Your task to perform on an android device: turn off translation in the chrome app Image 0: 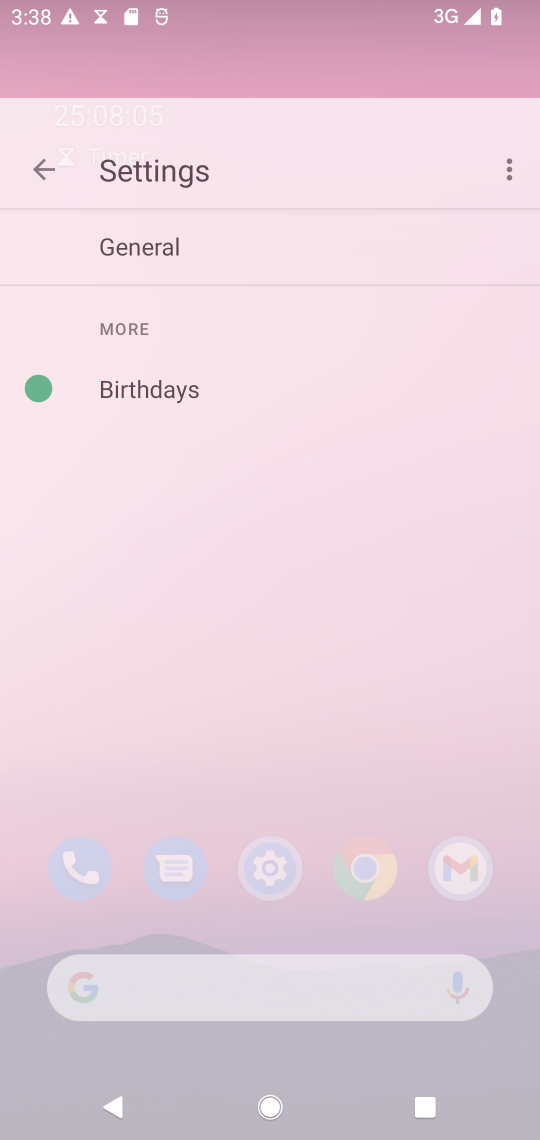
Step 0: click (403, 88)
Your task to perform on an android device: turn off translation in the chrome app Image 1: 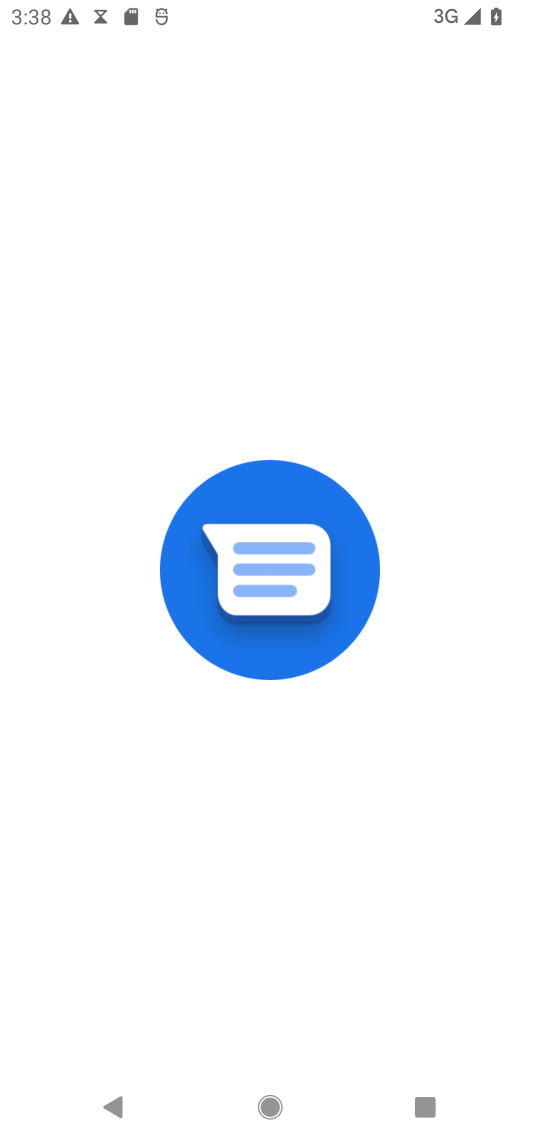
Step 1: click (328, 704)
Your task to perform on an android device: turn off translation in the chrome app Image 2: 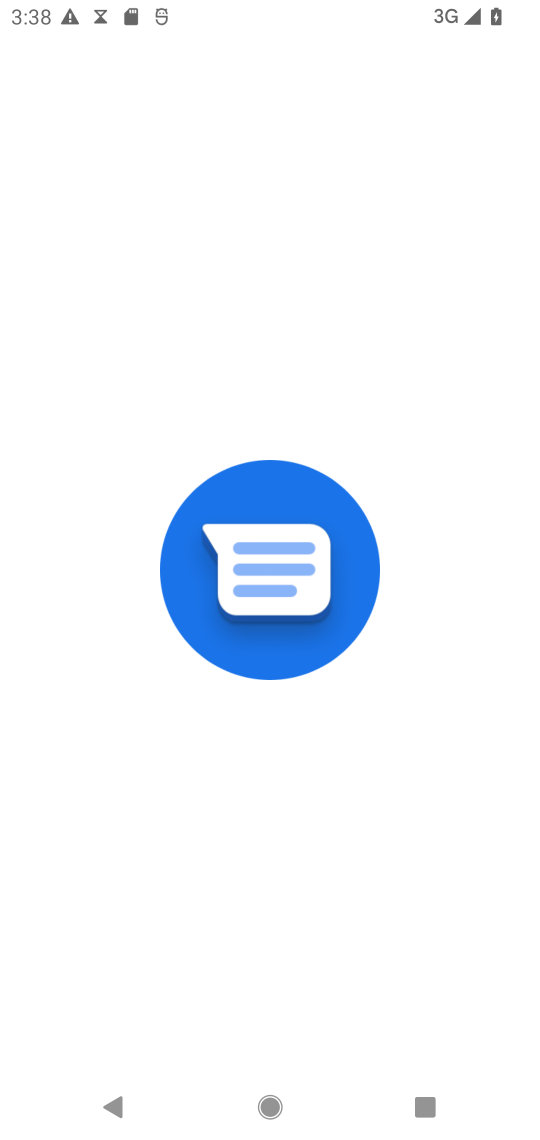
Step 2: press home button
Your task to perform on an android device: turn off translation in the chrome app Image 3: 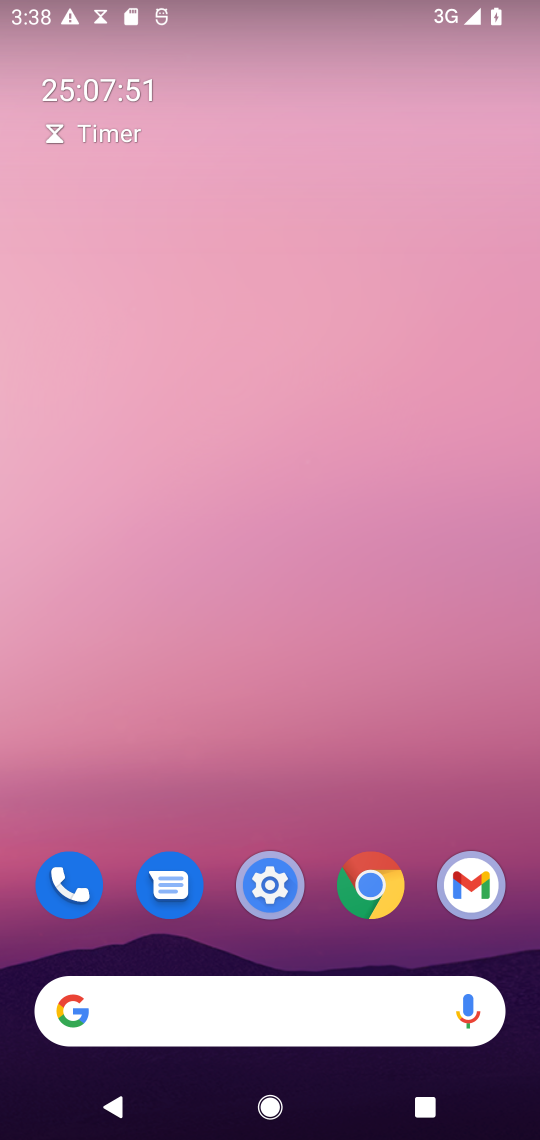
Step 3: drag from (252, 1020) to (425, 0)
Your task to perform on an android device: turn off translation in the chrome app Image 4: 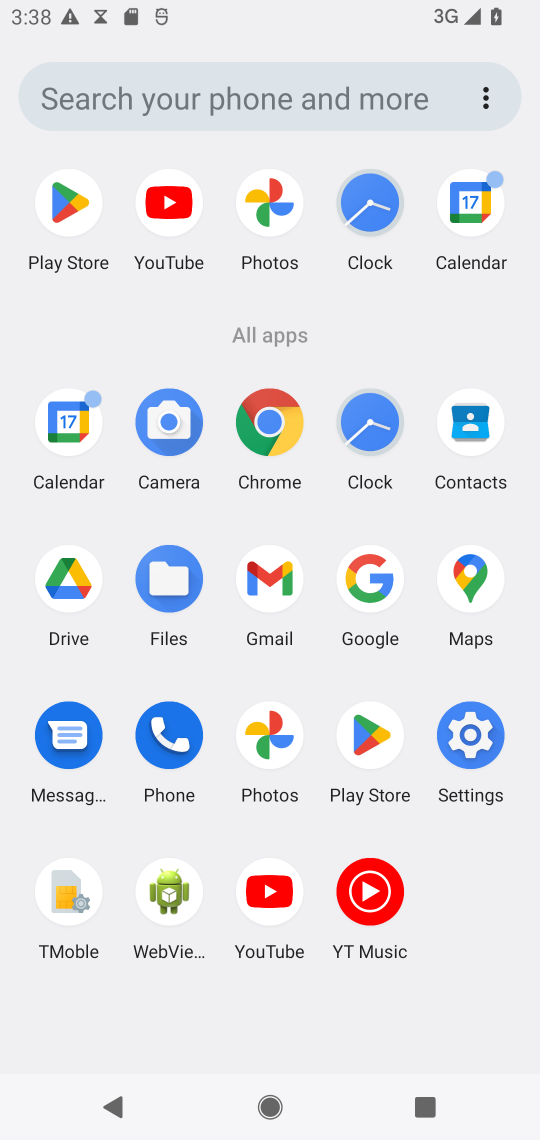
Step 4: click (292, 423)
Your task to perform on an android device: turn off translation in the chrome app Image 5: 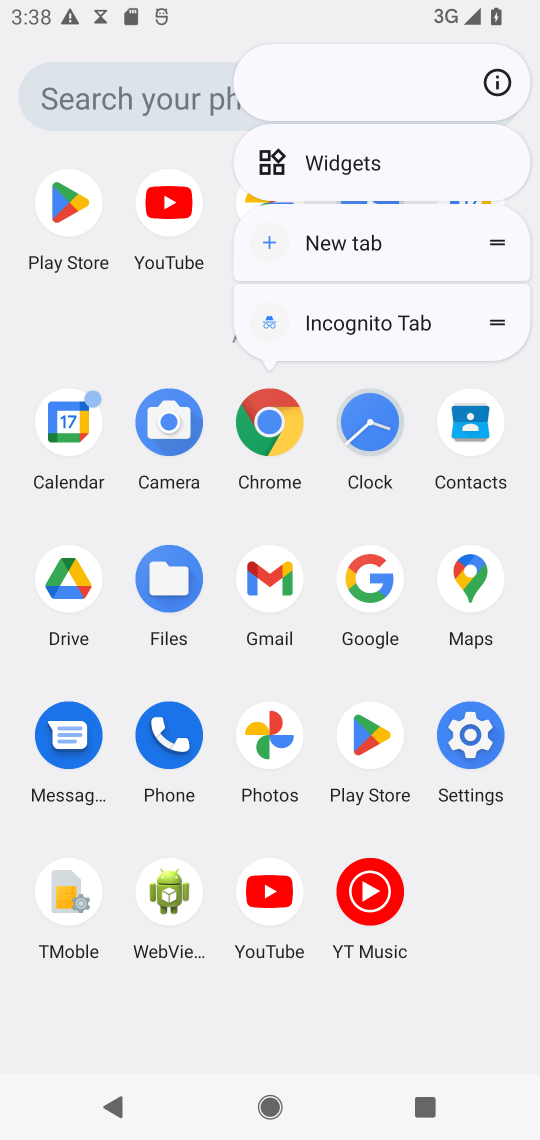
Step 5: click (264, 418)
Your task to perform on an android device: turn off translation in the chrome app Image 6: 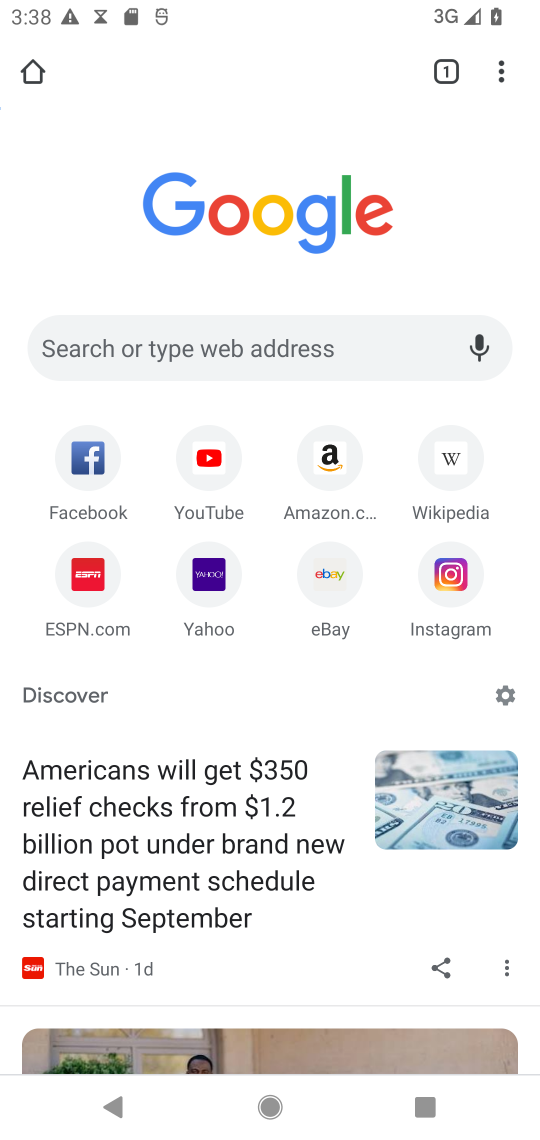
Step 6: drag from (503, 70) to (252, 760)
Your task to perform on an android device: turn off translation in the chrome app Image 7: 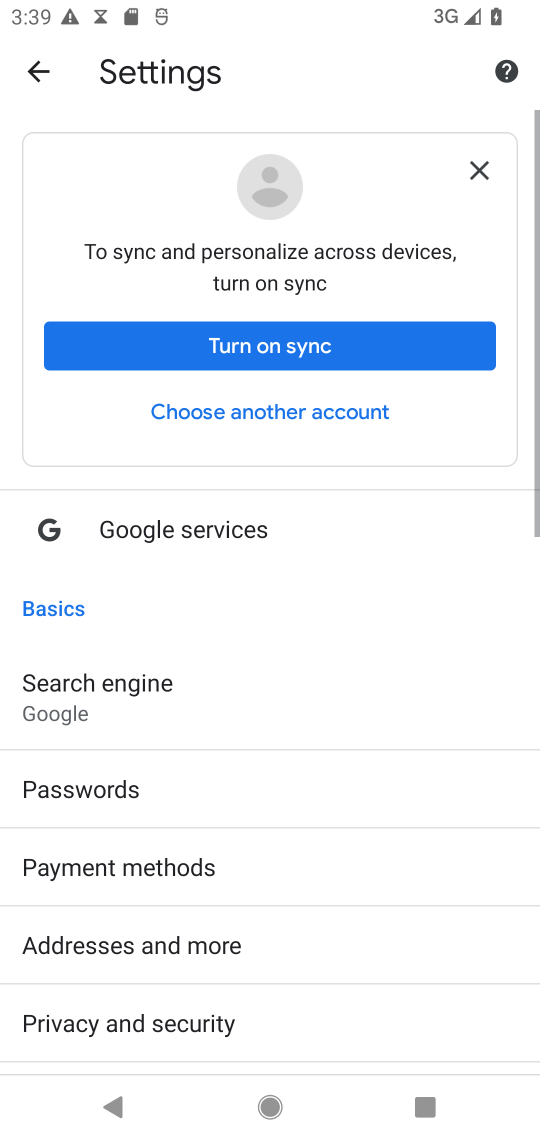
Step 7: drag from (220, 924) to (370, 228)
Your task to perform on an android device: turn off translation in the chrome app Image 8: 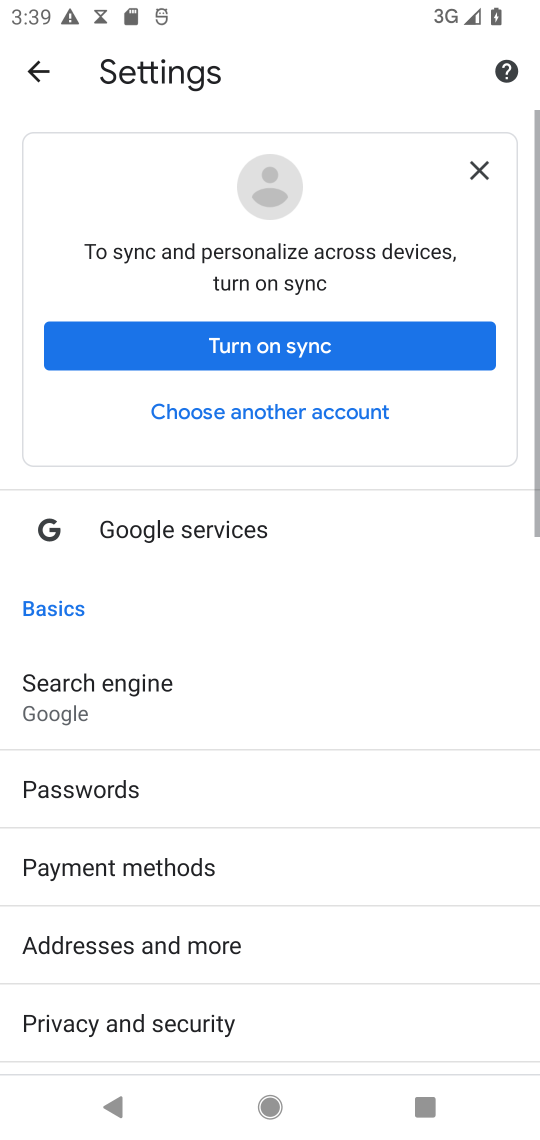
Step 8: drag from (126, 1031) to (288, 423)
Your task to perform on an android device: turn off translation in the chrome app Image 9: 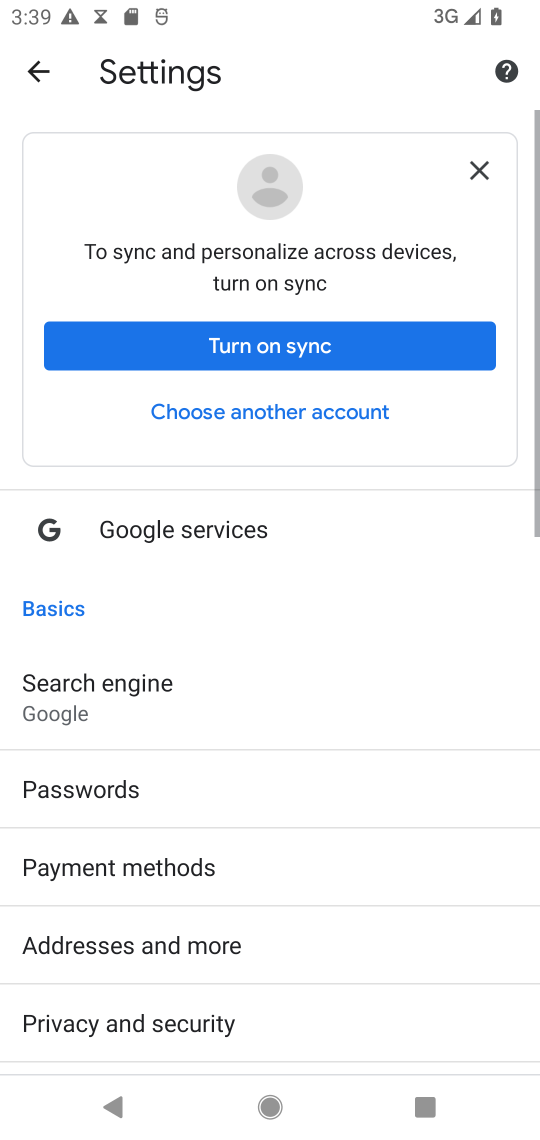
Step 9: drag from (161, 981) to (187, 565)
Your task to perform on an android device: turn off translation in the chrome app Image 10: 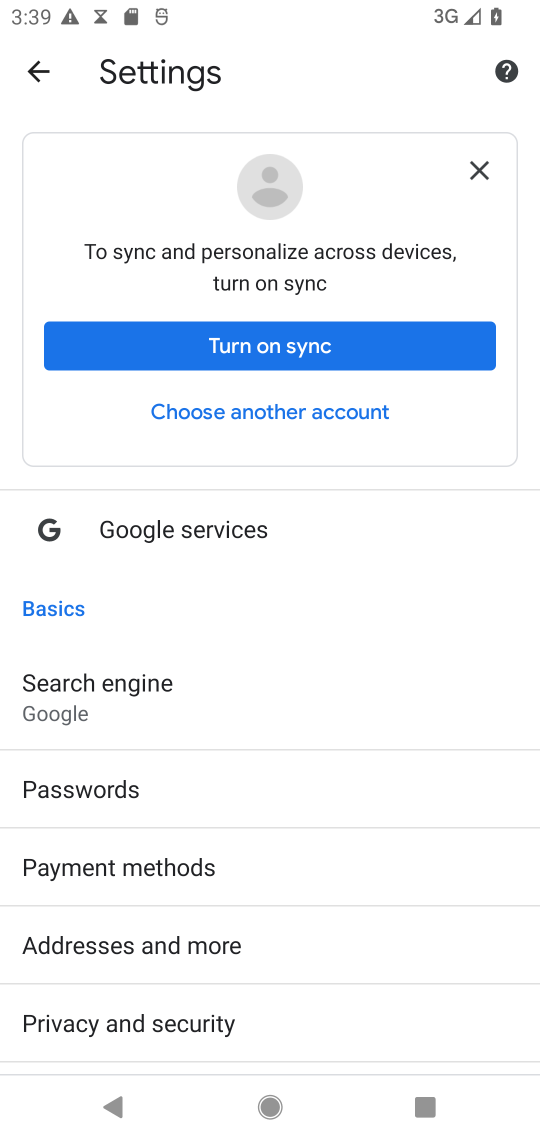
Step 10: drag from (158, 1015) to (183, 443)
Your task to perform on an android device: turn off translation in the chrome app Image 11: 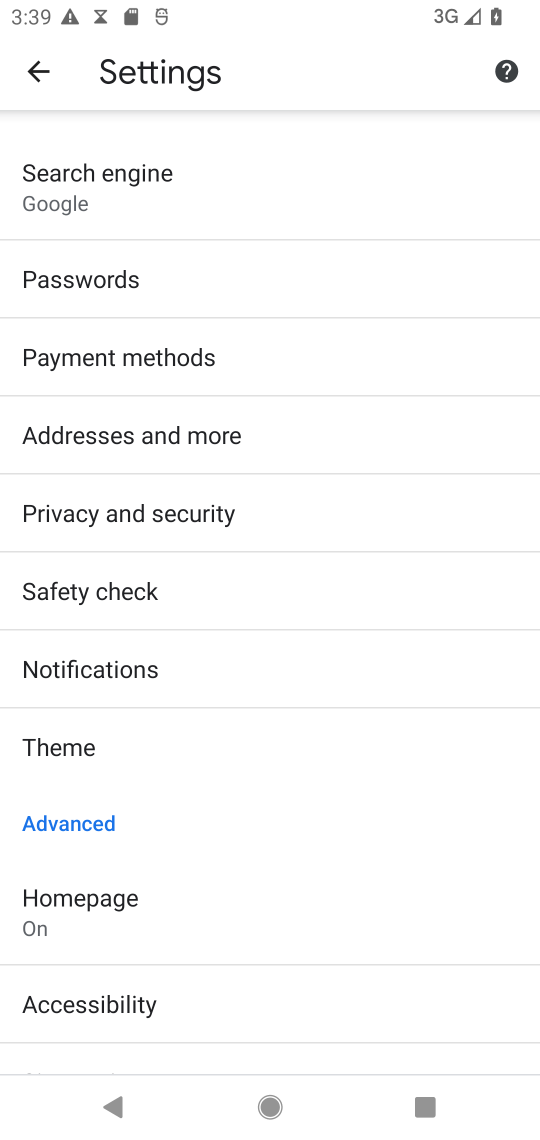
Step 11: drag from (245, 989) to (288, 410)
Your task to perform on an android device: turn off translation in the chrome app Image 12: 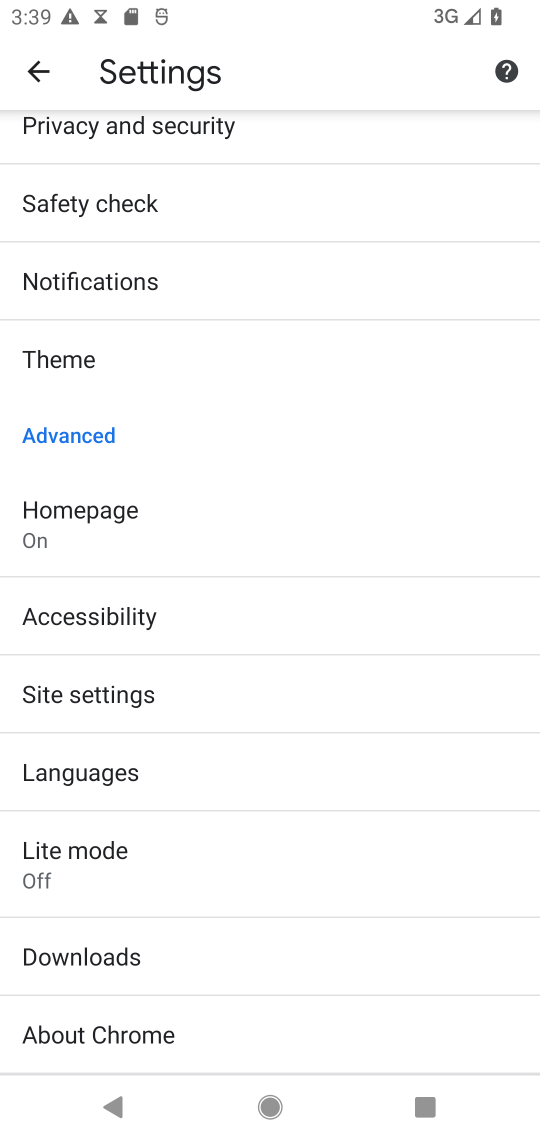
Step 12: click (117, 783)
Your task to perform on an android device: turn off translation in the chrome app Image 13: 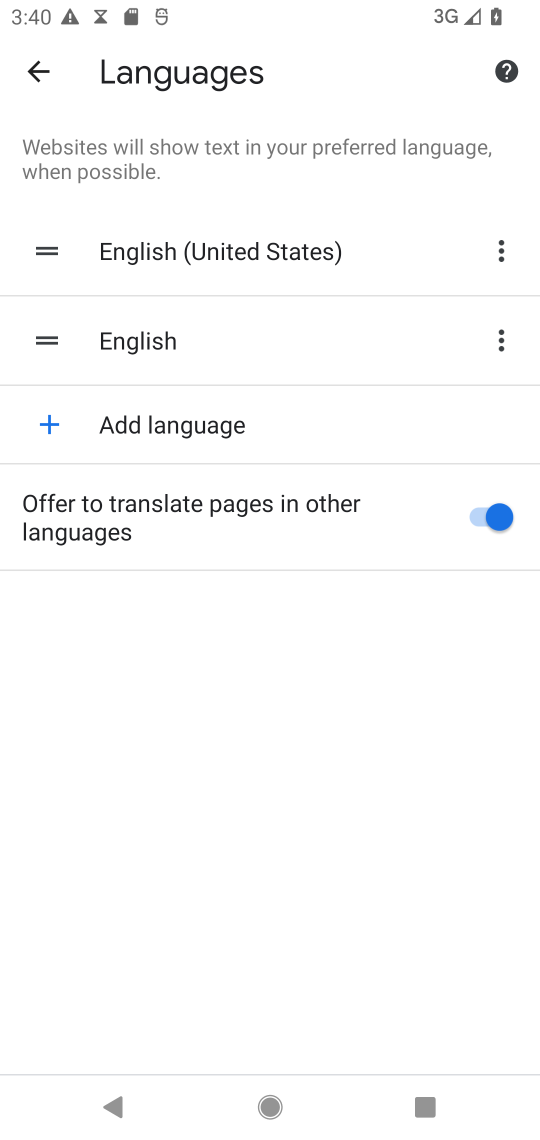
Step 13: click (497, 496)
Your task to perform on an android device: turn off translation in the chrome app Image 14: 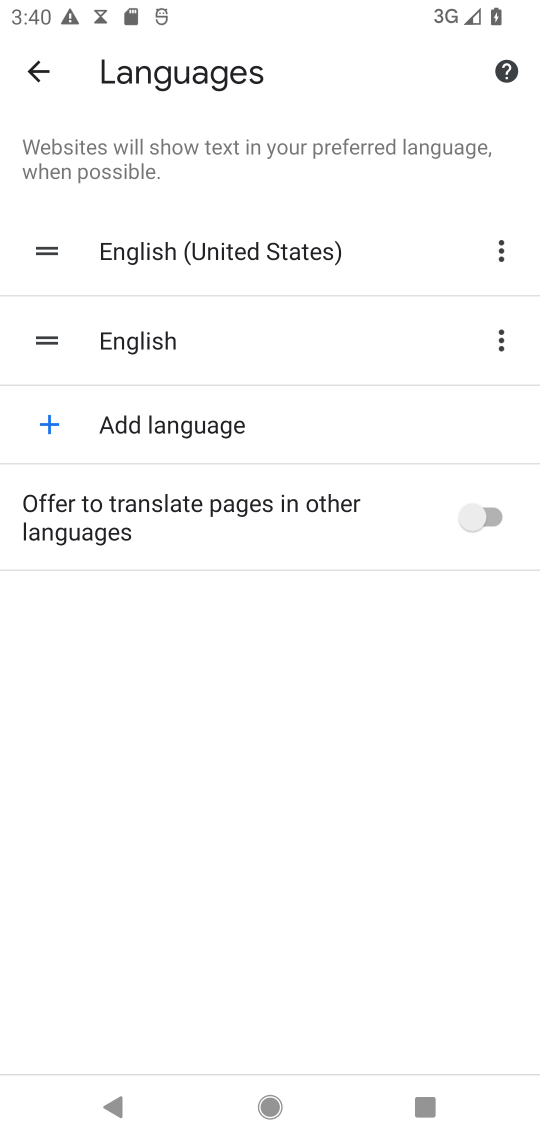
Step 14: task complete